Your task to perform on an android device: Show me recent news Image 0: 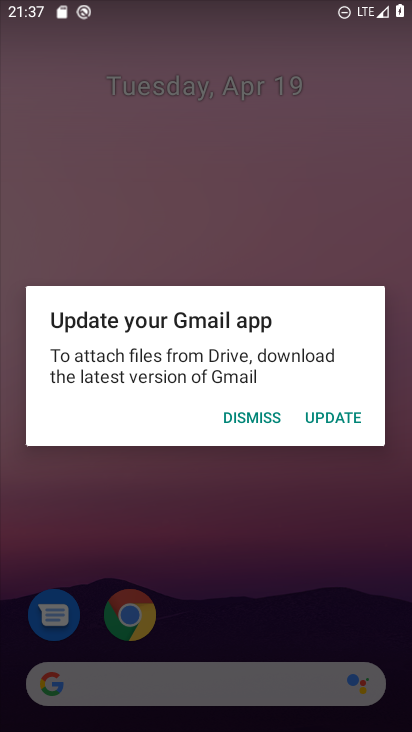
Step 0: press home button
Your task to perform on an android device: Show me recent news Image 1: 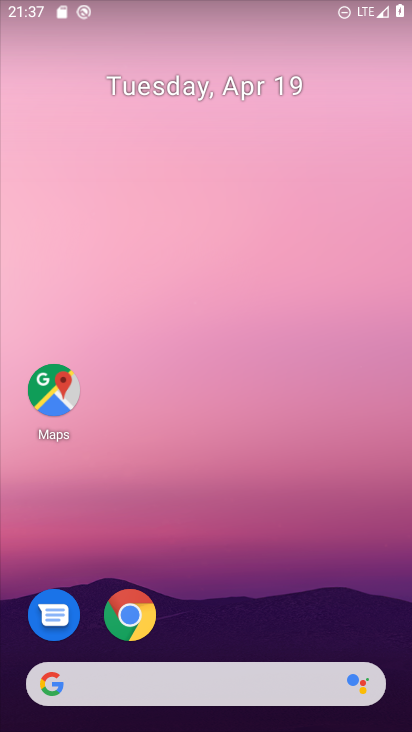
Step 1: click (211, 696)
Your task to perform on an android device: Show me recent news Image 2: 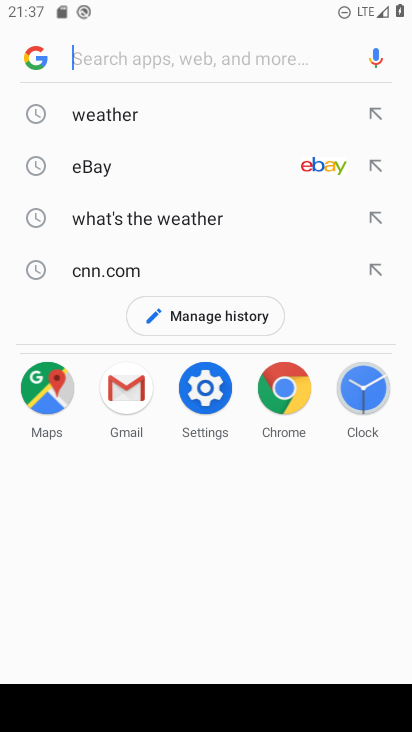
Step 2: click (30, 63)
Your task to perform on an android device: Show me recent news Image 3: 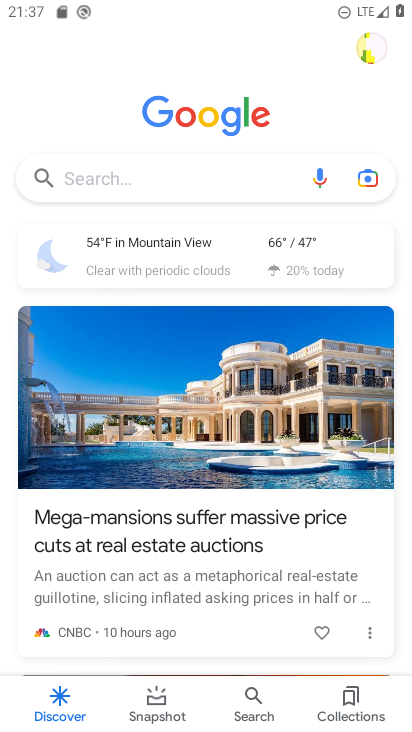
Step 3: task complete